Your task to perform on an android device: Go to Reddit.com Image 0: 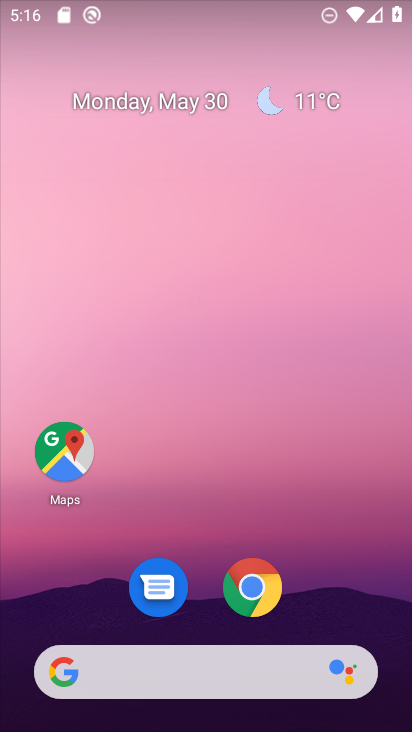
Step 0: drag from (311, 528) to (228, 13)
Your task to perform on an android device: Go to Reddit.com Image 1: 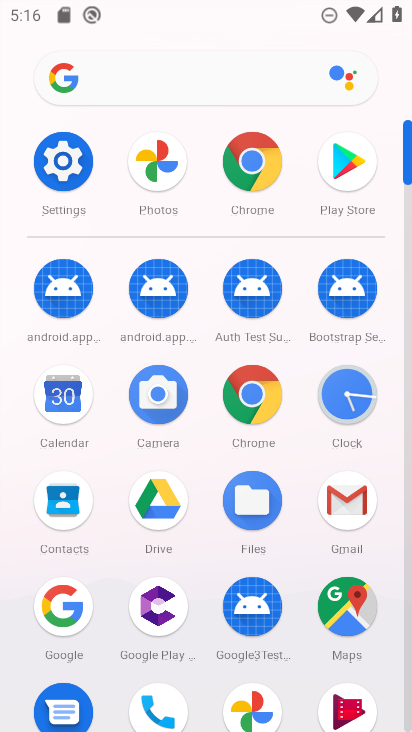
Step 1: drag from (6, 558) to (5, 245)
Your task to perform on an android device: Go to Reddit.com Image 2: 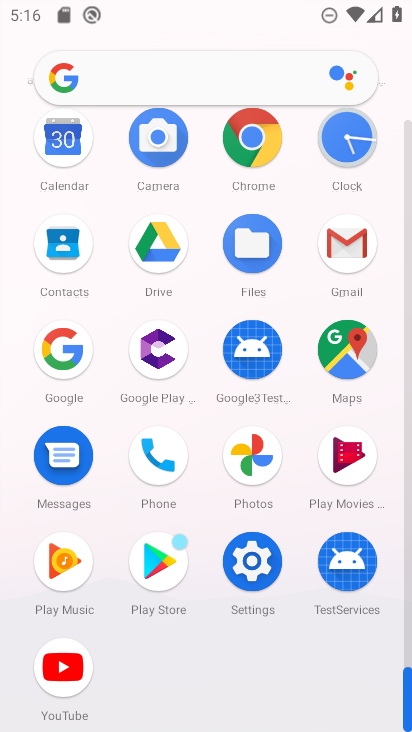
Step 2: click (249, 137)
Your task to perform on an android device: Go to Reddit.com Image 3: 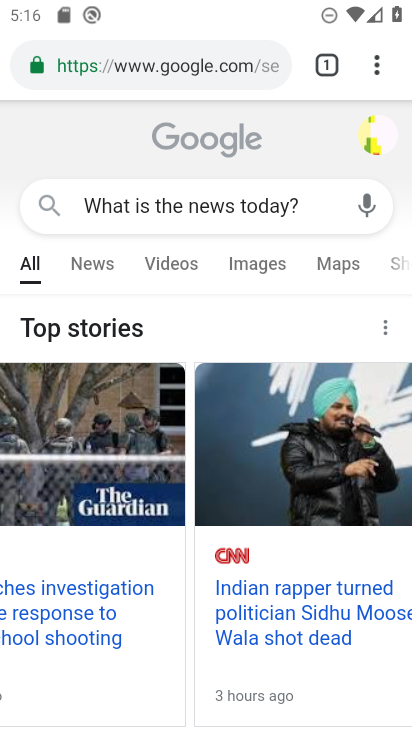
Step 3: click (179, 69)
Your task to perform on an android device: Go to Reddit.com Image 4: 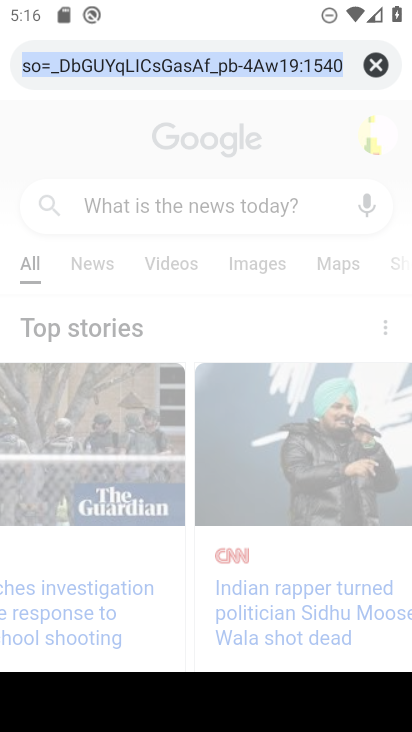
Step 4: click (374, 64)
Your task to perform on an android device: Go to Reddit.com Image 5: 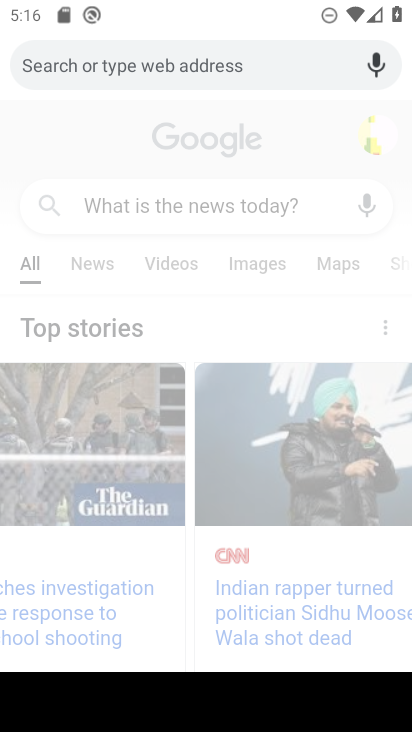
Step 5: type "Reddit.com"
Your task to perform on an android device: Go to Reddit.com Image 6: 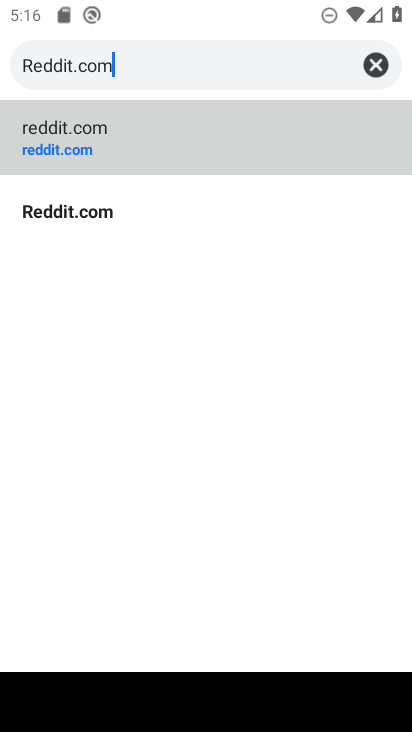
Step 6: type ""
Your task to perform on an android device: Go to Reddit.com Image 7: 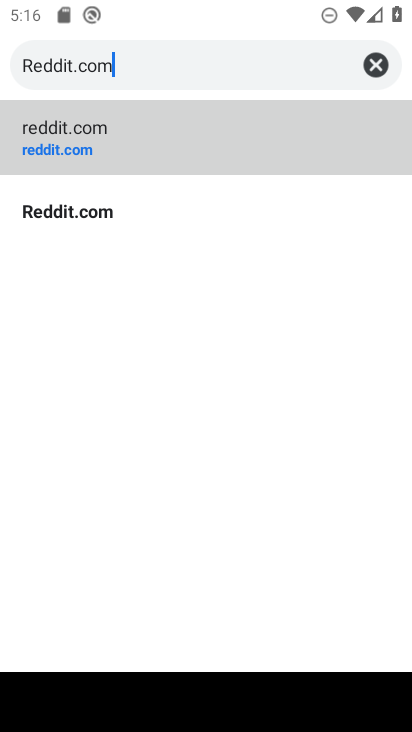
Step 7: click (157, 129)
Your task to perform on an android device: Go to Reddit.com Image 8: 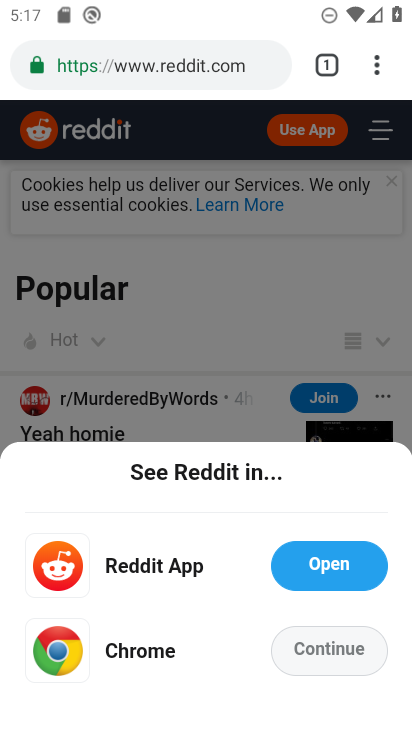
Step 8: task complete